Your task to perform on an android device: change the clock display to show seconds Image 0: 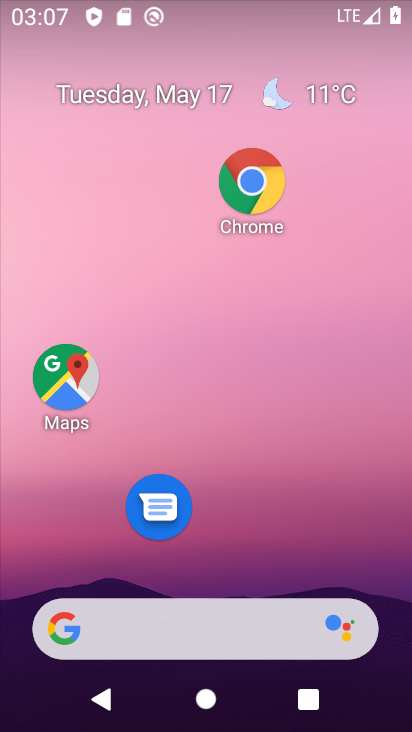
Step 0: drag from (195, 563) to (241, 110)
Your task to perform on an android device: change the clock display to show seconds Image 1: 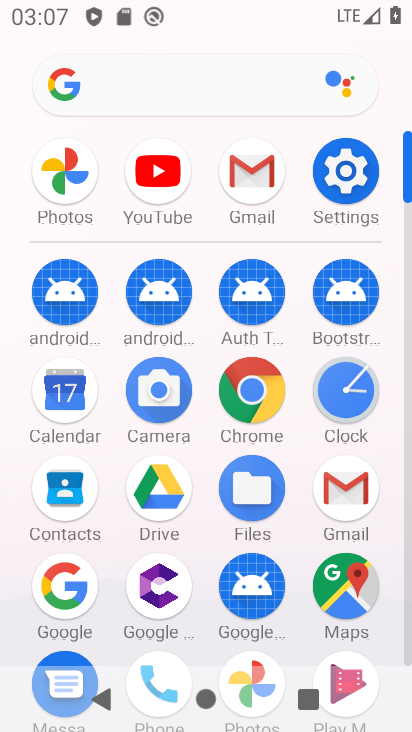
Step 1: click (360, 385)
Your task to perform on an android device: change the clock display to show seconds Image 2: 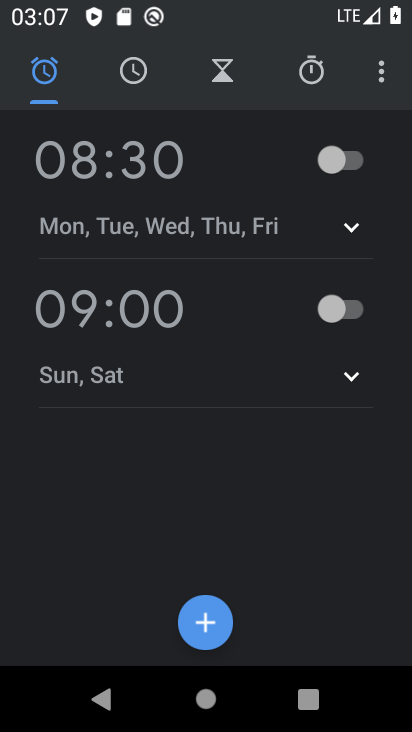
Step 2: click (397, 77)
Your task to perform on an android device: change the clock display to show seconds Image 3: 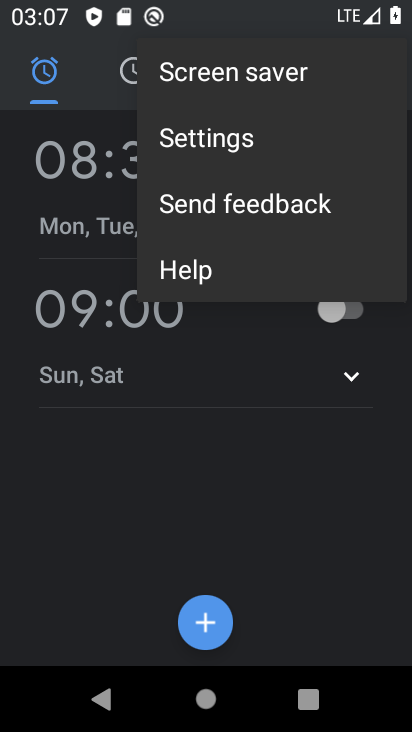
Step 3: click (262, 132)
Your task to perform on an android device: change the clock display to show seconds Image 4: 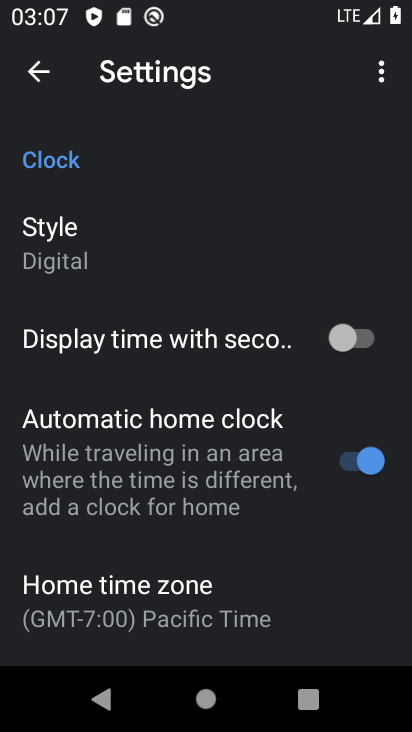
Step 4: click (374, 347)
Your task to perform on an android device: change the clock display to show seconds Image 5: 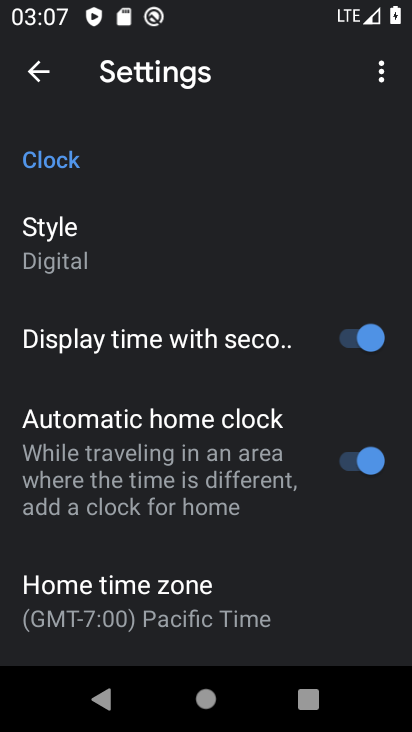
Step 5: task complete